Your task to perform on an android device: set default search engine in the chrome app Image 0: 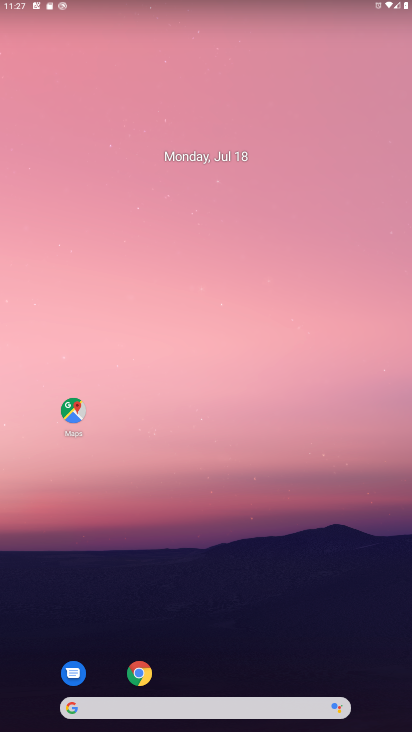
Step 0: click (151, 677)
Your task to perform on an android device: set default search engine in the chrome app Image 1: 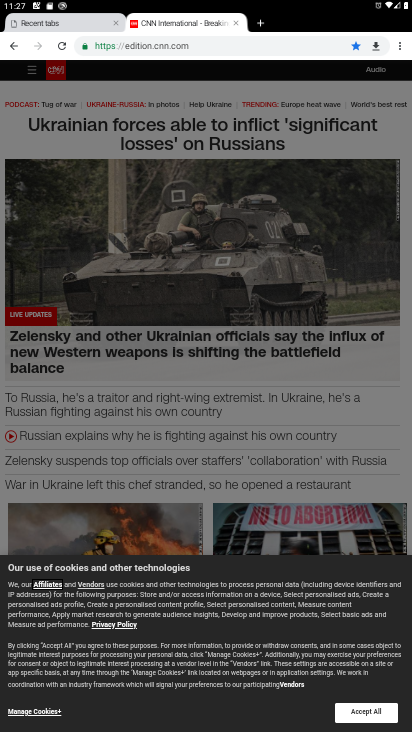
Step 1: click (396, 46)
Your task to perform on an android device: set default search engine in the chrome app Image 2: 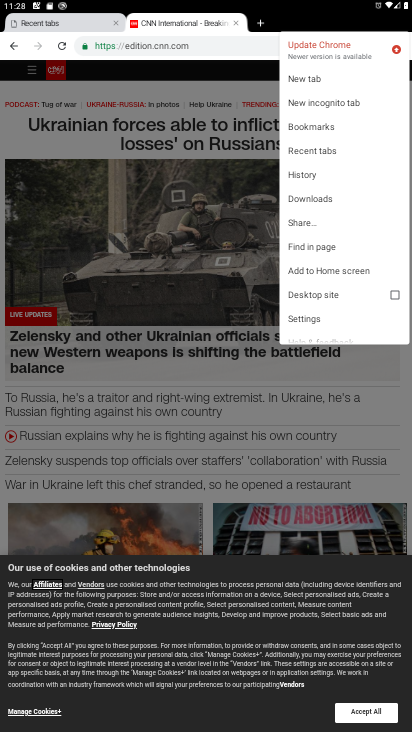
Step 2: click (313, 314)
Your task to perform on an android device: set default search engine in the chrome app Image 3: 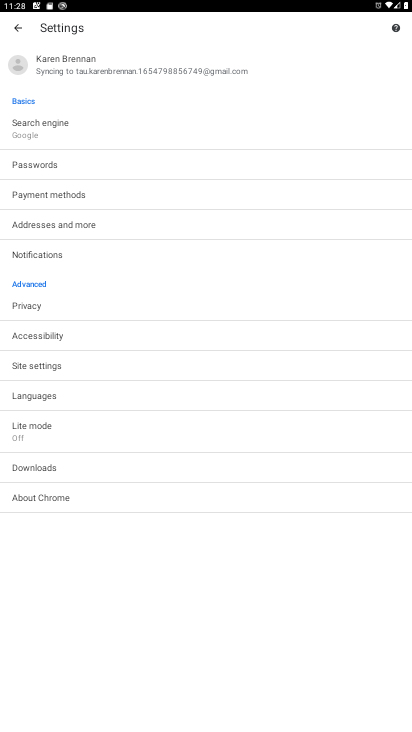
Step 3: click (58, 372)
Your task to perform on an android device: set default search engine in the chrome app Image 4: 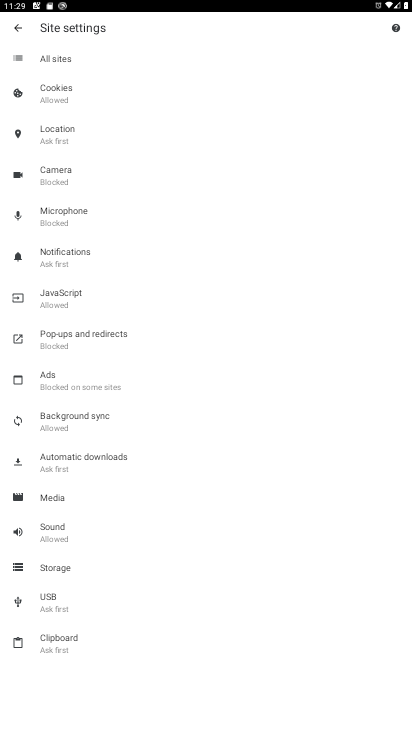
Step 4: drag from (172, 384) to (184, 534)
Your task to perform on an android device: set default search engine in the chrome app Image 5: 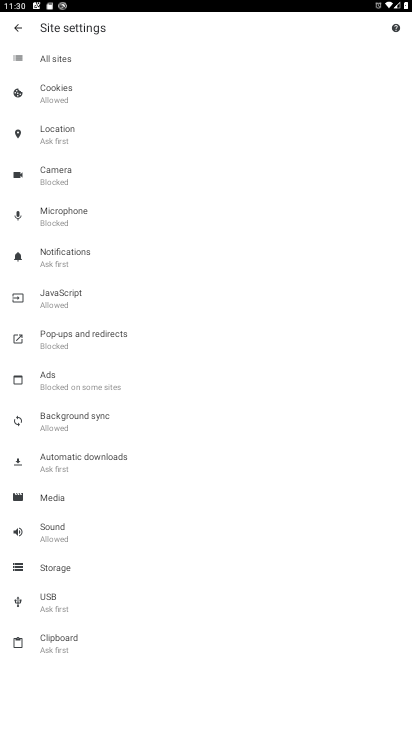
Step 5: click (8, 32)
Your task to perform on an android device: set default search engine in the chrome app Image 6: 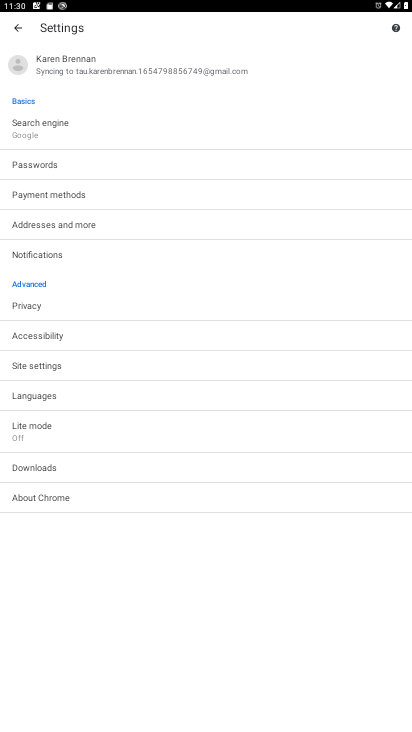
Step 6: click (98, 132)
Your task to perform on an android device: set default search engine in the chrome app Image 7: 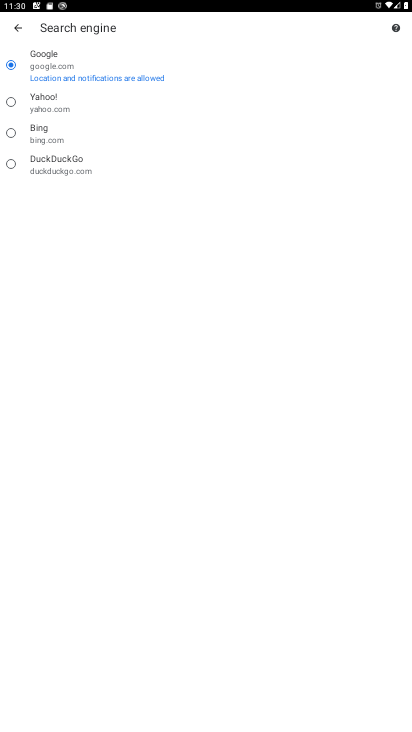
Step 7: task complete